Your task to perform on an android device: Open Google Maps and go to "Timeline" Image 0: 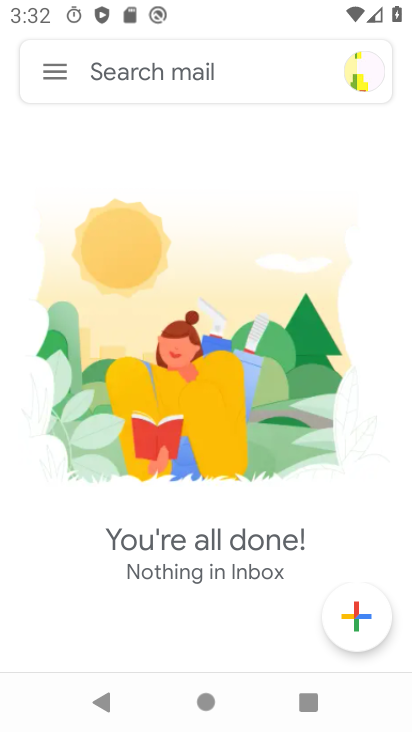
Step 0: press home button
Your task to perform on an android device: Open Google Maps and go to "Timeline" Image 1: 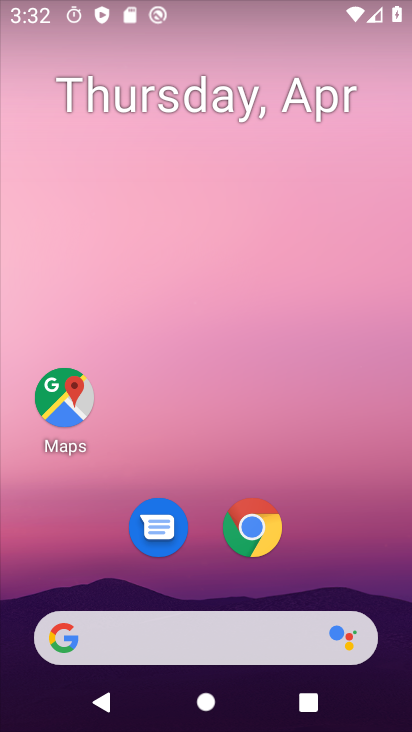
Step 1: click (71, 400)
Your task to perform on an android device: Open Google Maps and go to "Timeline" Image 2: 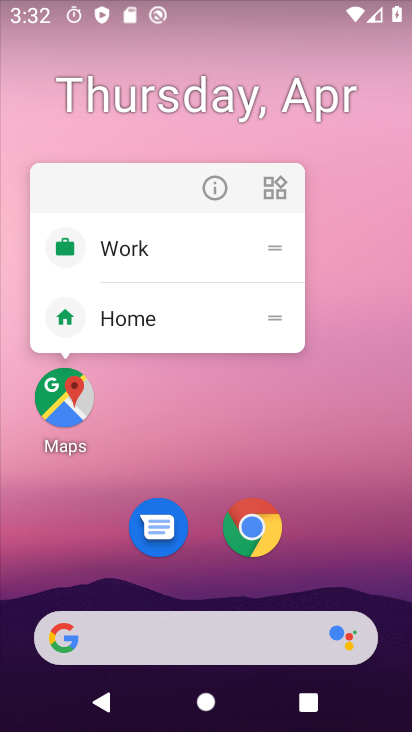
Step 2: click (72, 398)
Your task to perform on an android device: Open Google Maps and go to "Timeline" Image 3: 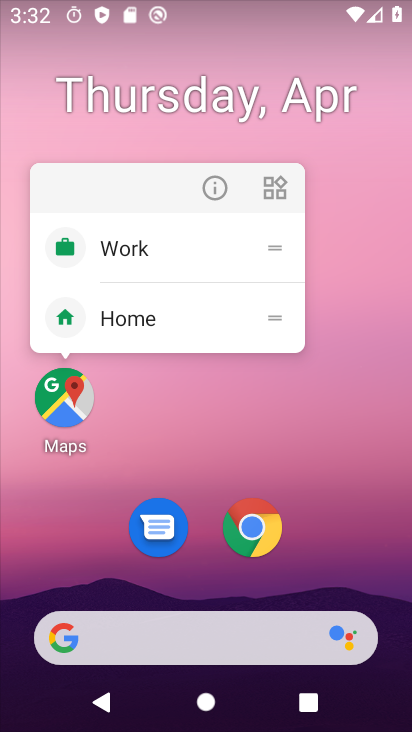
Step 3: drag from (297, 442) to (373, 13)
Your task to perform on an android device: Open Google Maps and go to "Timeline" Image 4: 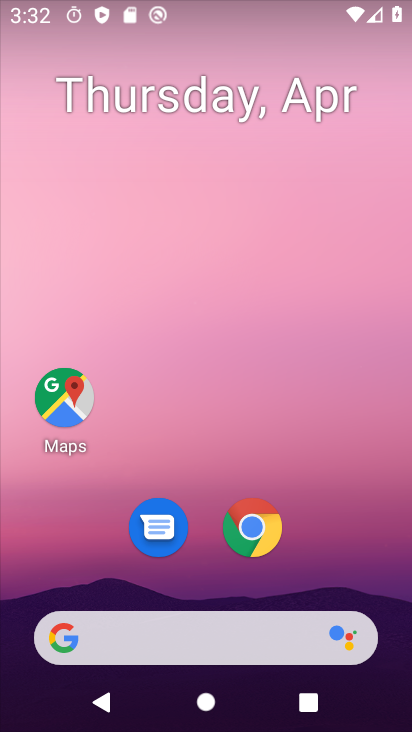
Step 4: drag from (341, 449) to (342, 35)
Your task to perform on an android device: Open Google Maps and go to "Timeline" Image 5: 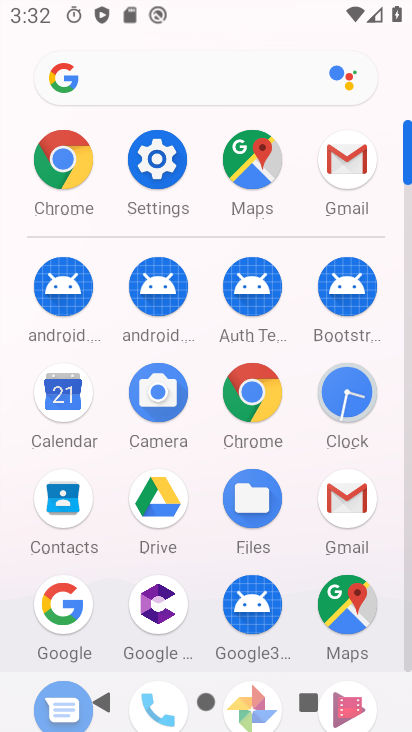
Step 5: click (261, 165)
Your task to perform on an android device: Open Google Maps and go to "Timeline" Image 6: 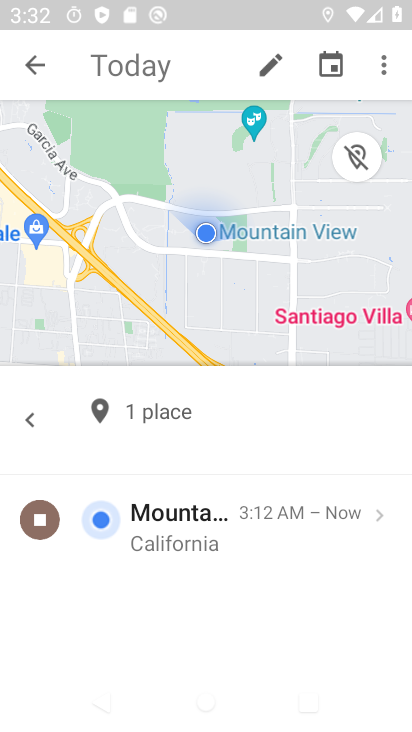
Step 6: task complete